Your task to perform on an android device: clear history in the chrome app Image 0: 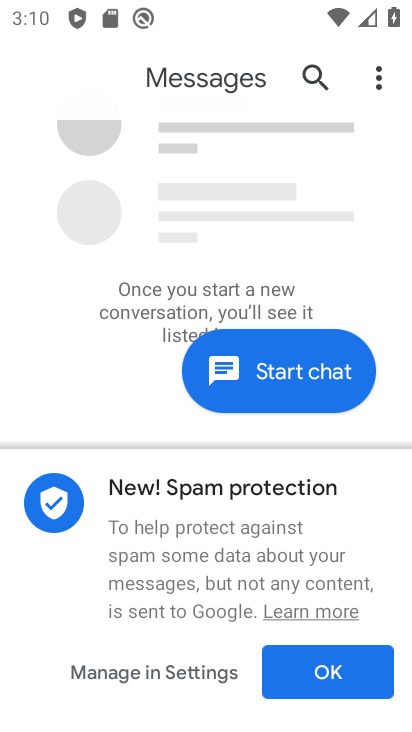
Step 0: press home button
Your task to perform on an android device: clear history in the chrome app Image 1: 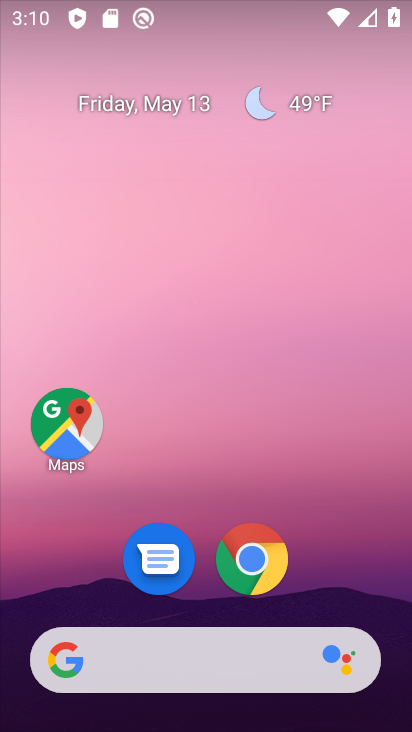
Step 1: click (254, 558)
Your task to perform on an android device: clear history in the chrome app Image 2: 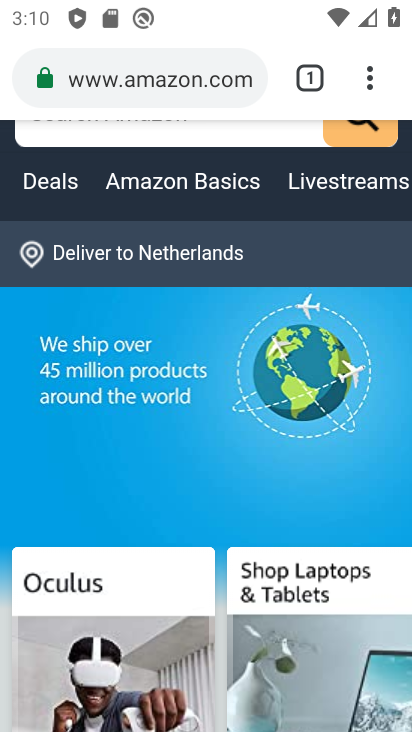
Step 2: click (367, 85)
Your task to perform on an android device: clear history in the chrome app Image 3: 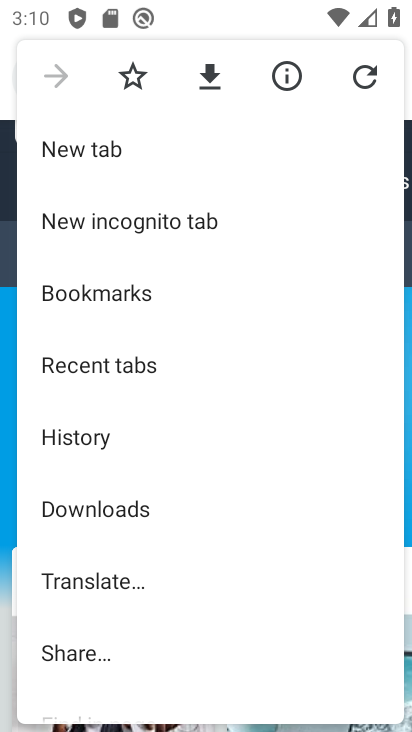
Step 3: click (62, 445)
Your task to perform on an android device: clear history in the chrome app Image 4: 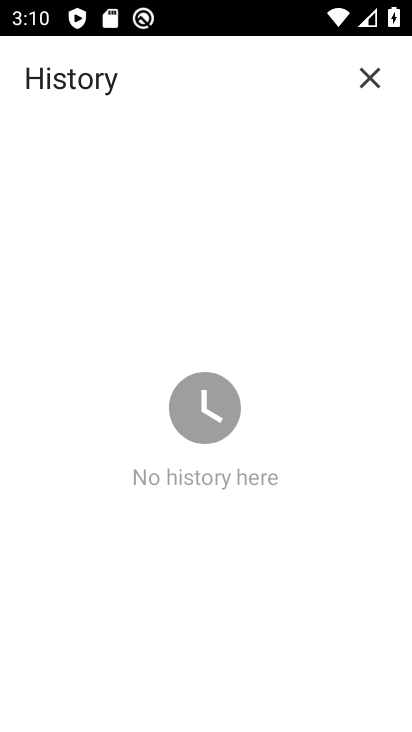
Step 4: task complete